Your task to perform on an android device: Go to battery settings Image 0: 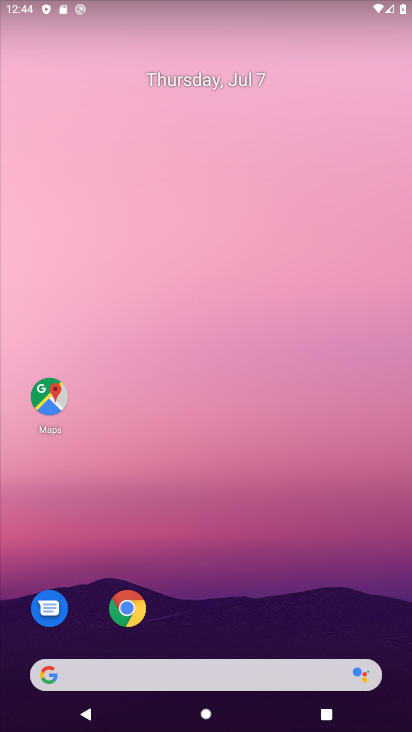
Step 0: drag from (232, 513) to (220, 143)
Your task to perform on an android device: Go to battery settings Image 1: 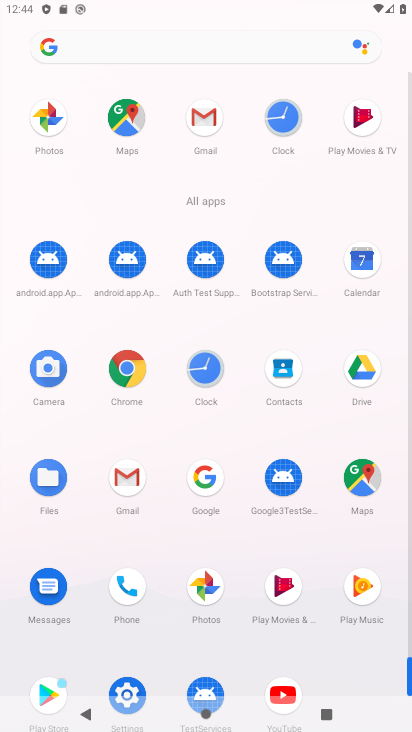
Step 1: drag from (138, 683) to (76, 170)
Your task to perform on an android device: Go to battery settings Image 2: 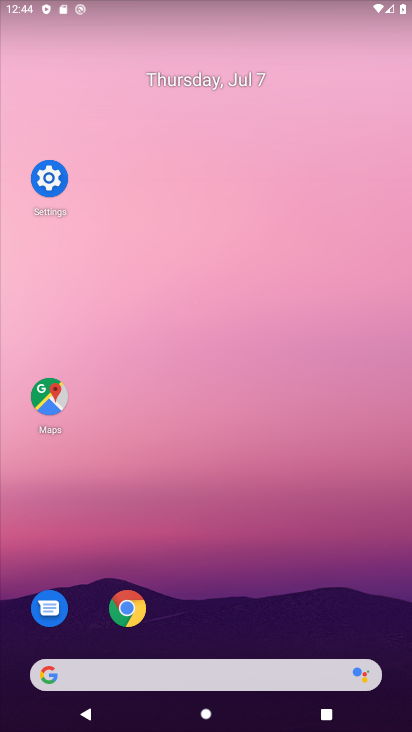
Step 2: click (66, 183)
Your task to perform on an android device: Go to battery settings Image 3: 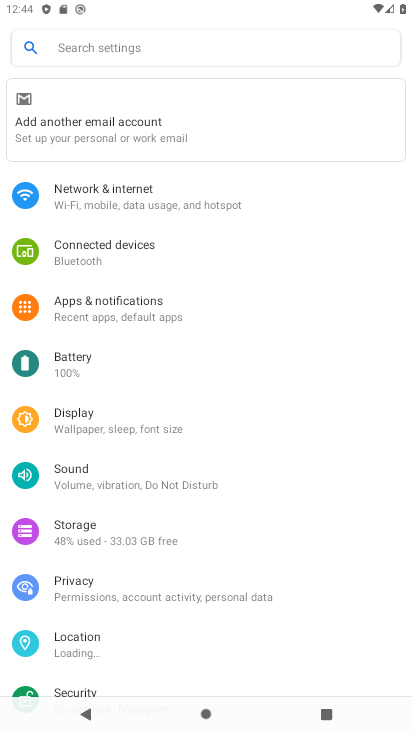
Step 3: click (135, 374)
Your task to perform on an android device: Go to battery settings Image 4: 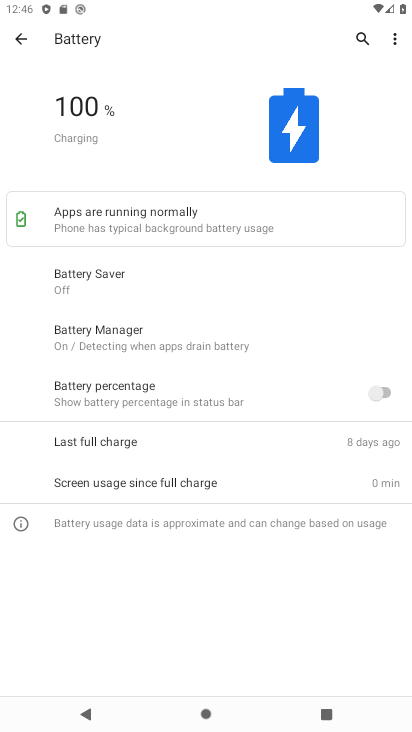
Step 4: task complete